Your task to perform on an android device: Go to calendar. Show me events next week Image 0: 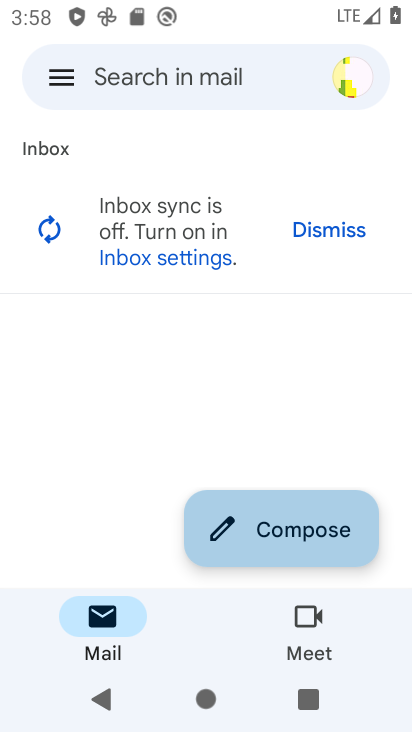
Step 0: press home button
Your task to perform on an android device: Go to calendar. Show me events next week Image 1: 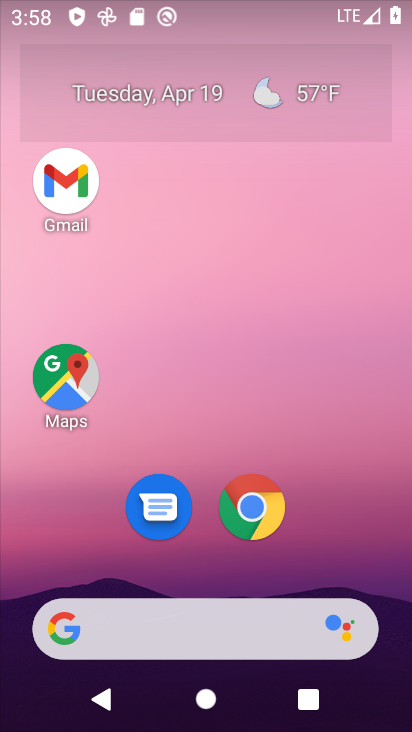
Step 1: drag from (239, 591) to (299, 134)
Your task to perform on an android device: Go to calendar. Show me events next week Image 2: 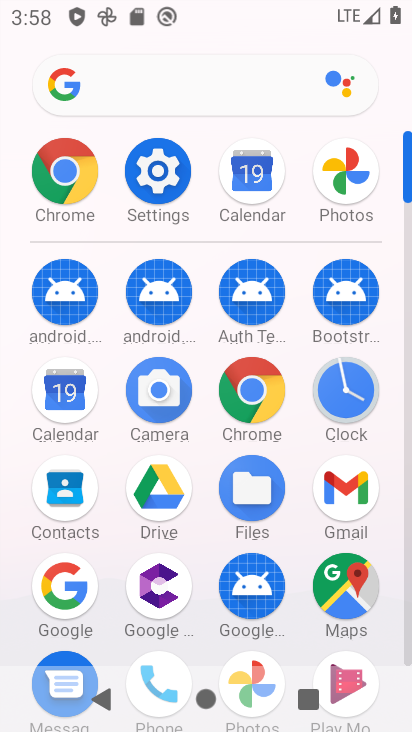
Step 2: click (50, 397)
Your task to perform on an android device: Go to calendar. Show me events next week Image 3: 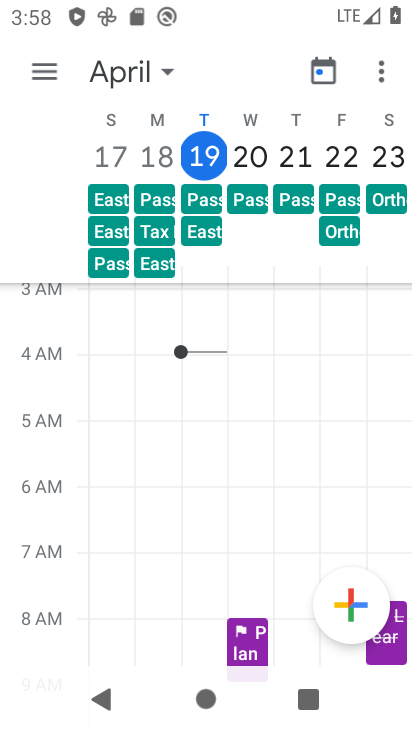
Step 3: drag from (393, 153) to (1, 143)
Your task to perform on an android device: Go to calendar. Show me events next week Image 4: 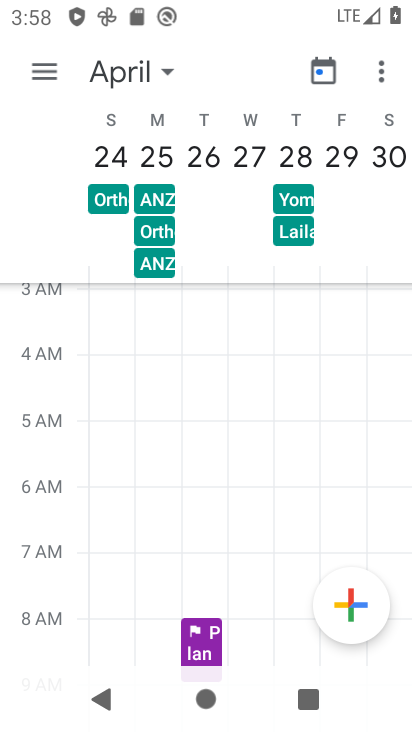
Step 4: click (201, 156)
Your task to perform on an android device: Go to calendar. Show me events next week Image 5: 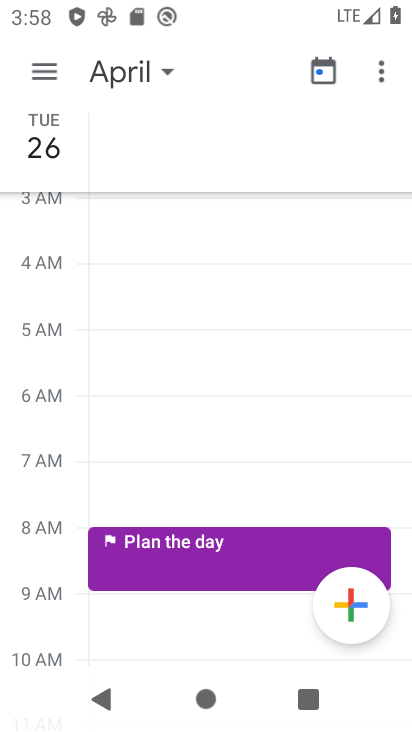
Step 5: task complete